Your task to perform on an android device: clear all cookies in the chrome app Image 0: 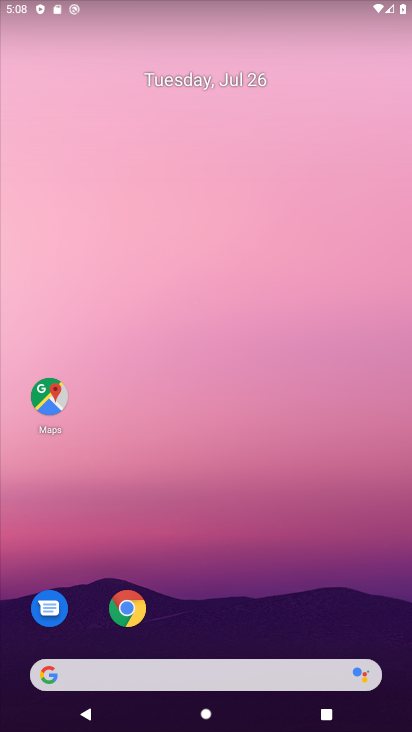
Step 0: drag from (210, 642) to (234, 99)
Your task to perform on an android device: clear all cookies in the chrome app Image 1: 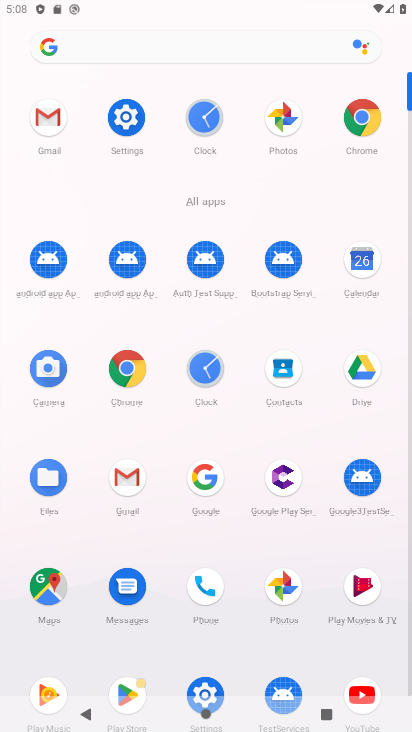
Step 1: click (366, 116)
Your task to perform on an android device: clear all cookies in the chrome app Image 2: 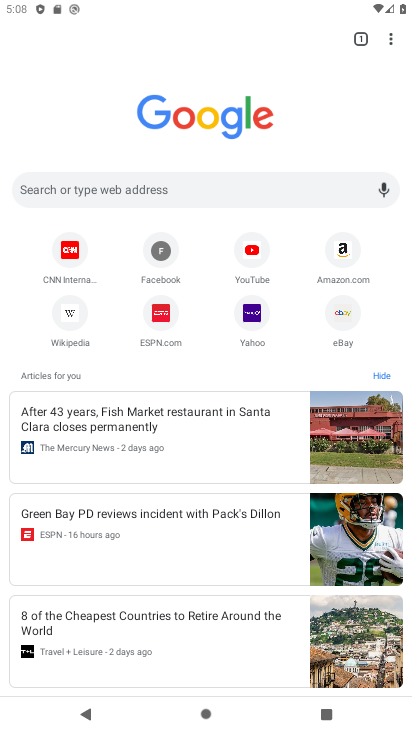
Step 2: drag from (387, 41) to (261, 333)
Your task to perform on an android device: clear all cookies in the chrome app Image 3: 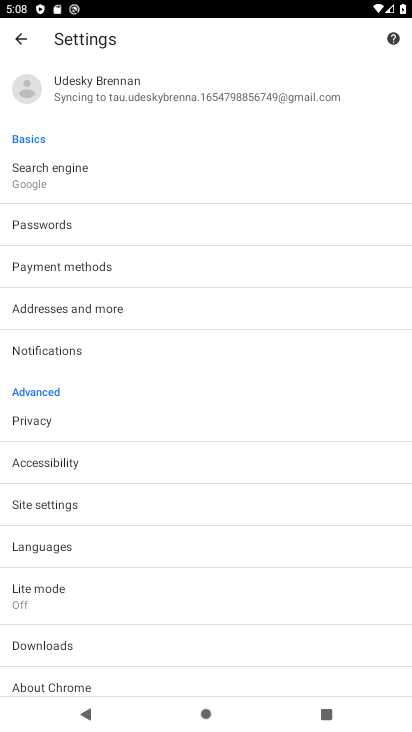
Step 3: click (31, 420)
Your task to perform on an android device: clear all cookies in the chrome app Image 4: 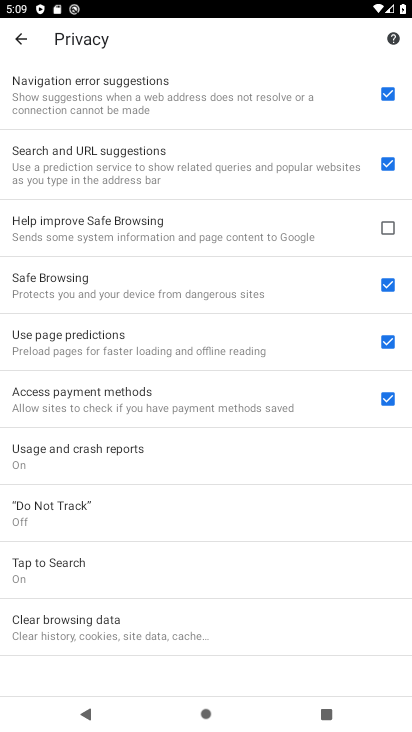
Step 4: click (102, 636)
Your task to perform on an android device: clear all cookies in the chrome app Image 5: 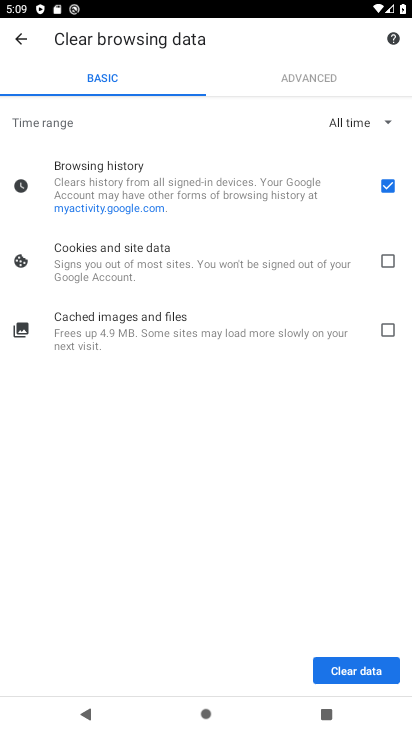
Step 5: click (395, 259)
Your task to perform on an android device: clear all cookies in the chrome app Image 6: 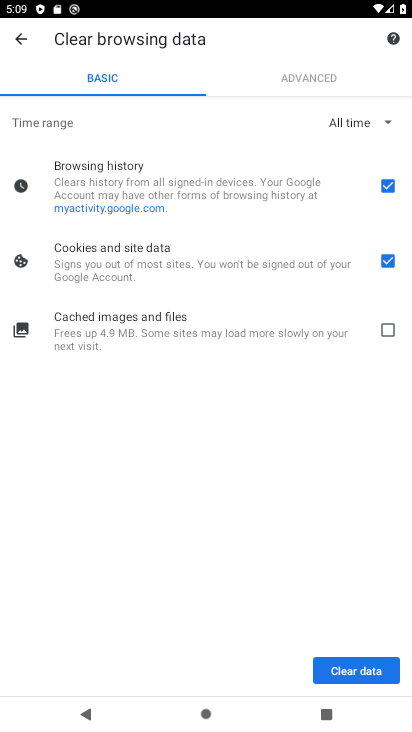
Step 6: click (389, 180)
Your task to perform on an android device: clear all cookies in the chrome app Image 7: 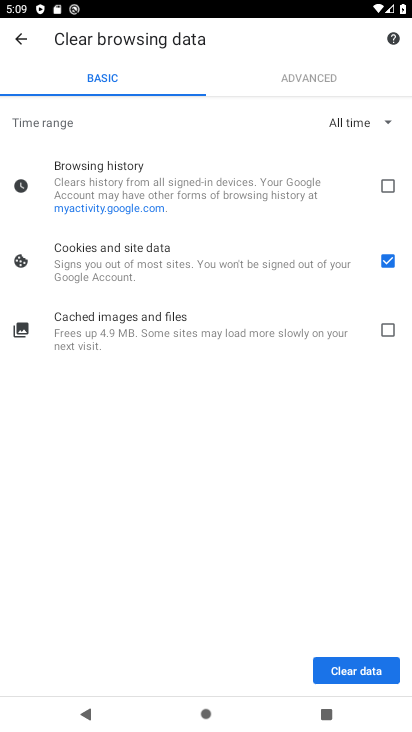
Step 7: click (347, 669)
Your task to perform on an android device: clear all cookies in the chrome app Image 8: 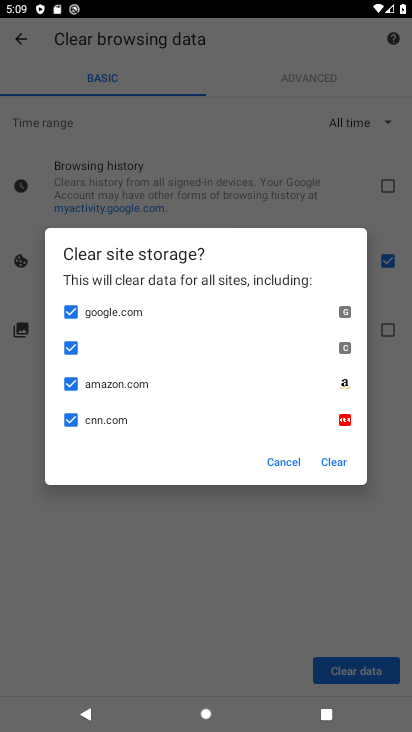
Step 8: click (341, 464)
Your task to perform on an android device: clear all cookies in the chrome app Image 9: 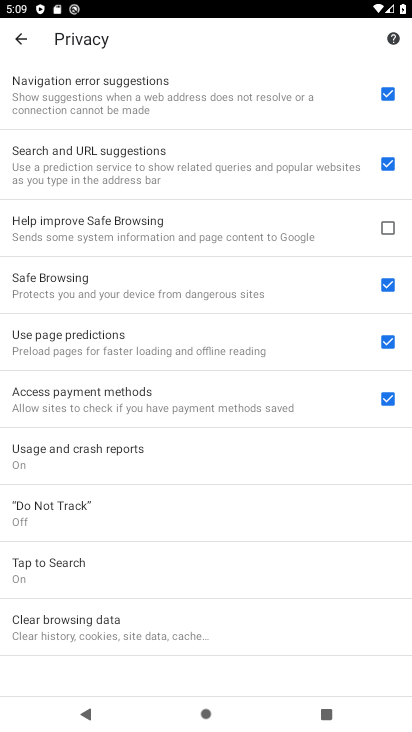
Step 9: task complete